Your task to perform on an android device: toggle sleep mode Image 0: 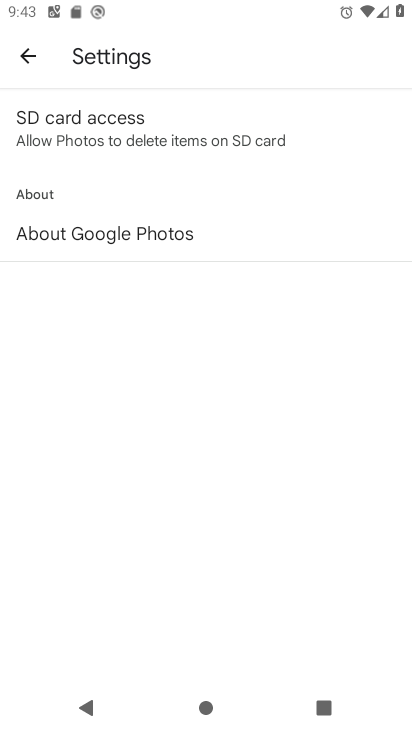
Step 0: press home button
Your task to perform on an android device: toggle sleep mode Image 1: 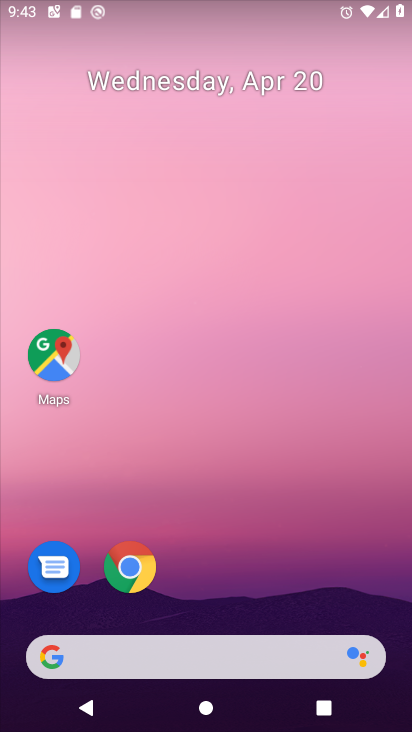
Step 1: drag from (363, 548) to (377, 170)
Your task to perform on an android device: toggle sleep mode Image 2: 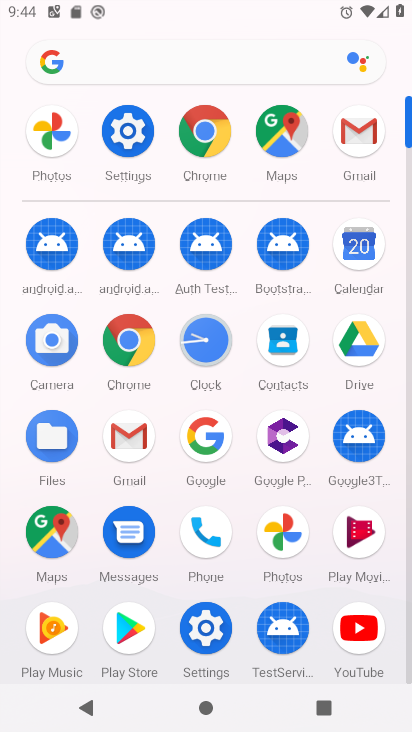
Step 2: click (132, 137)
Your task to perform on an android device: toggle sleep mode Image 3: 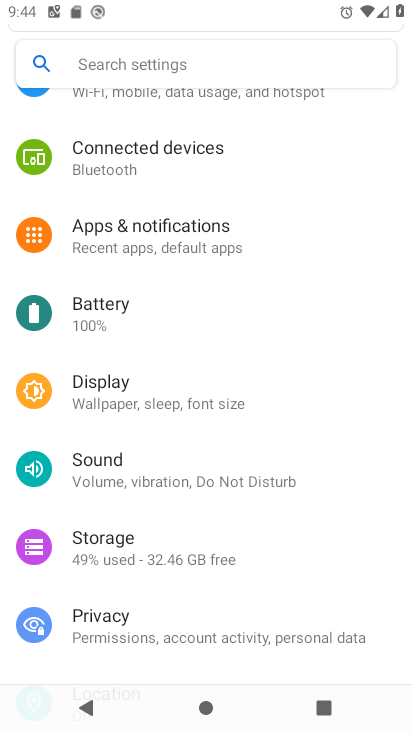
Step 3: drag from (327, 543) to (337, 364)
Your task to perform on an android device: toggle sleep mode Image 4: 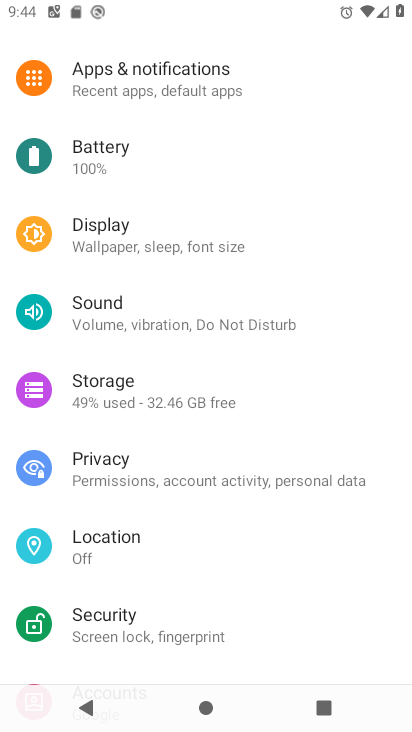
Step 4: drag from (316, 568) to (343, 358)
Your task to perform on an android device: toggle sleep mode Image 5: 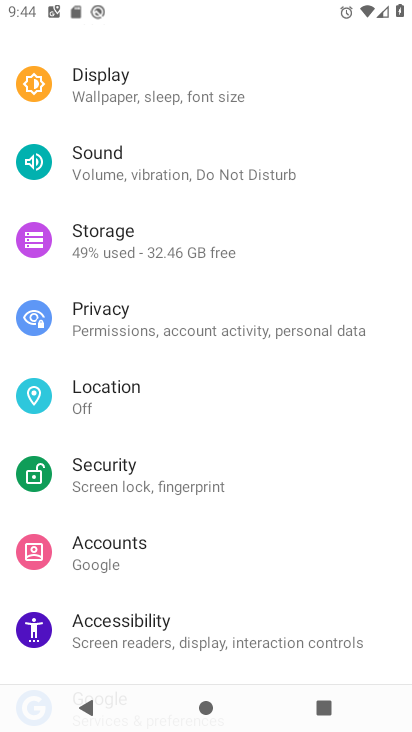
Step 5: drag from (312, 546) to (366, 255)
Your task to perform on an android device: toggle sleep mode Image 6: 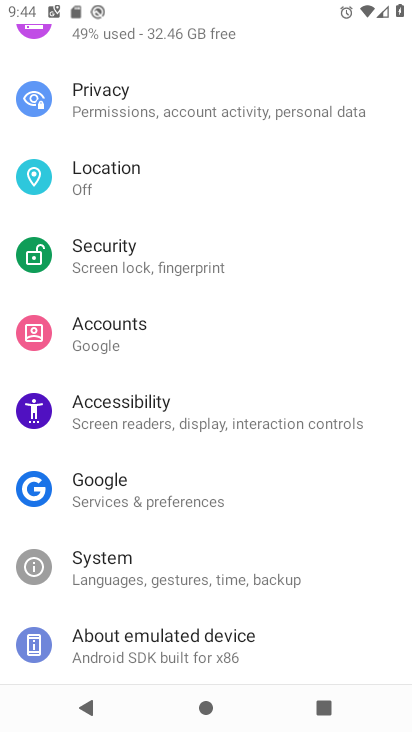
Step 6: drag from (352, 494) to (372, 309)
Your task to perform on an android device: toggle sleep mode Image 7: 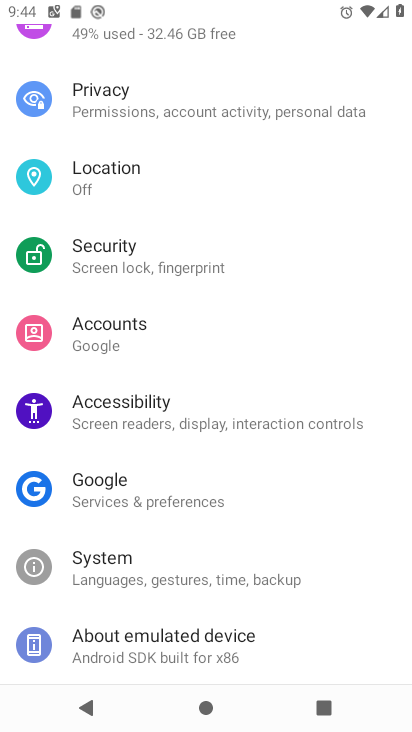
Step 7: drag from (371, 251) to (329, 485)
Your task to perform on an android device: toggle sleep mode Image 8: 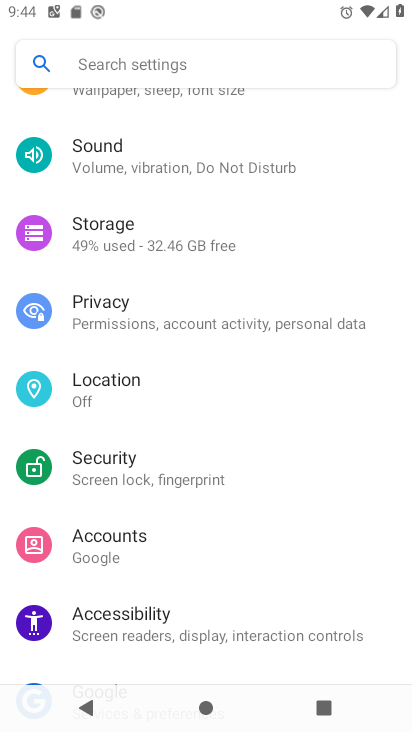
Step 8: drag from (367, 222) to (360, 413)
Your task to perform on an android device: toggle sleep mode Image 9: 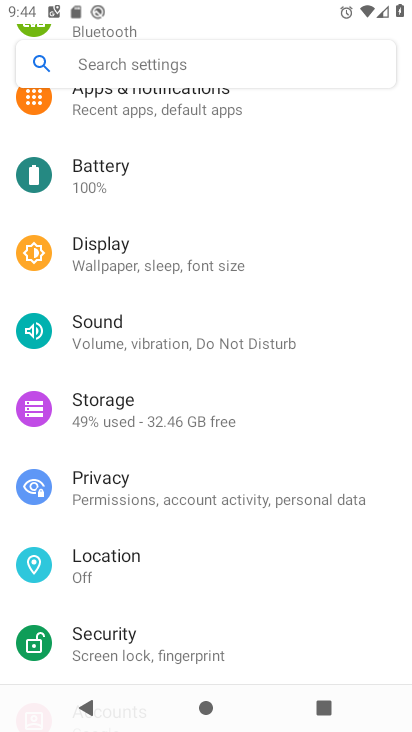
Step 9: drag from (370, 200) to (350, 352)
Your task to perform on an android device: toggle sleep mode Image 10: 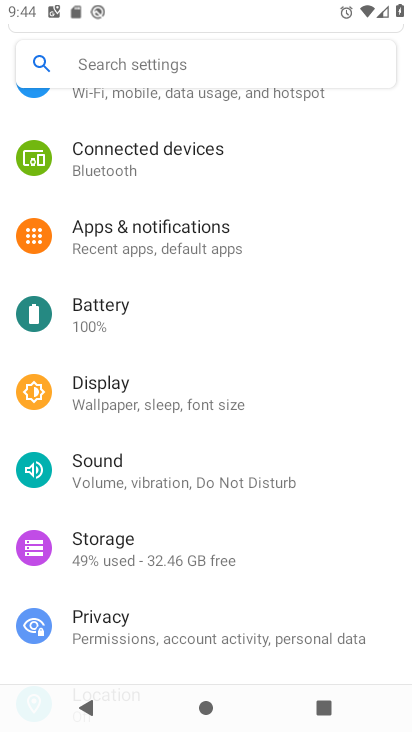
Step 10: click (230, 391)
Your task to perform on an android device: toggle sleep mode Image 11: 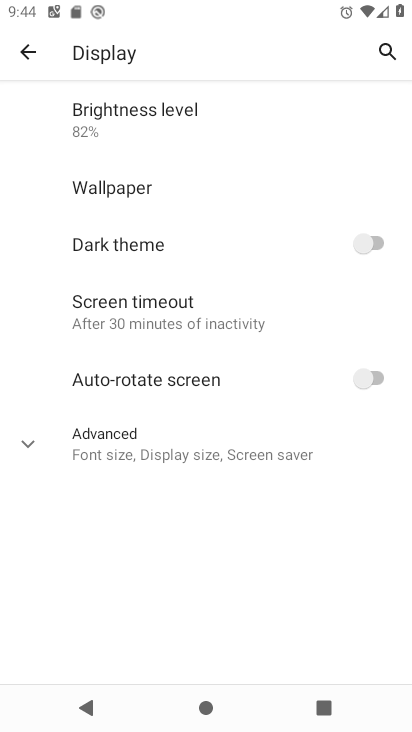
Step 11: click (239, 445)
Your task to perform on an android device: toggle sleep mode Image 12: 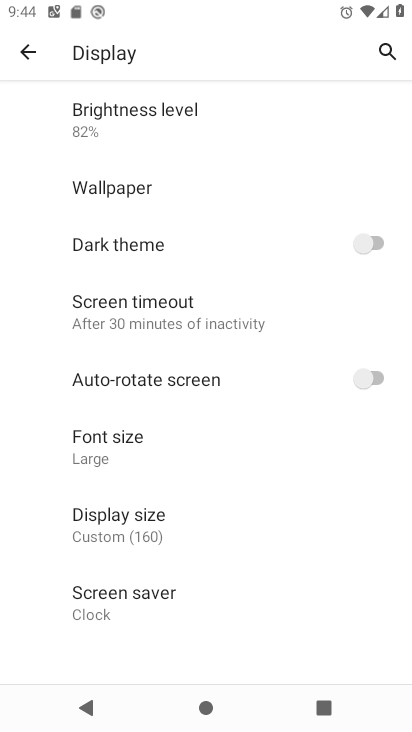
Step 12: task complete